Your task to perform on an android device: snooze an email in the gmail app Image 0: 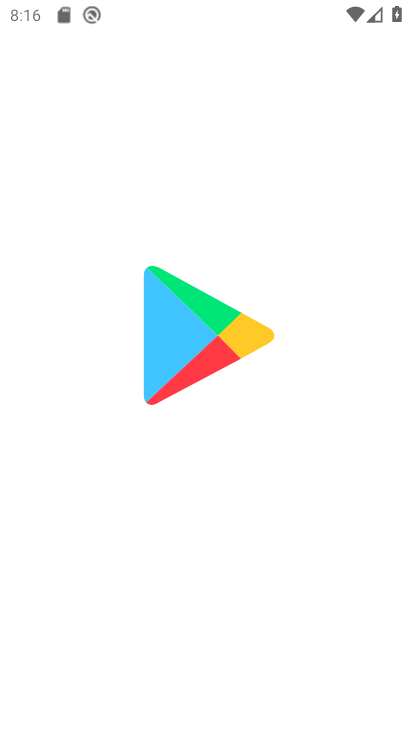
Step 0: press home button
Your task to perform on an android device: snooze an email in the gmail app Image 1: 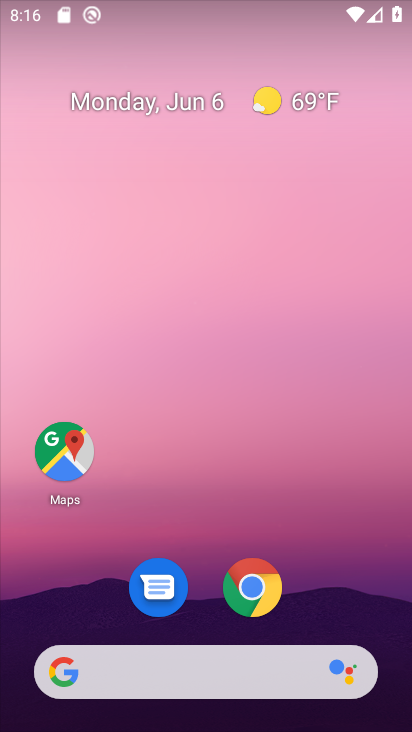
Step 1: drag from (353, 590) to (373, 147)
Your task to perform on an android device: snooze an email in the gmail app Image 2: 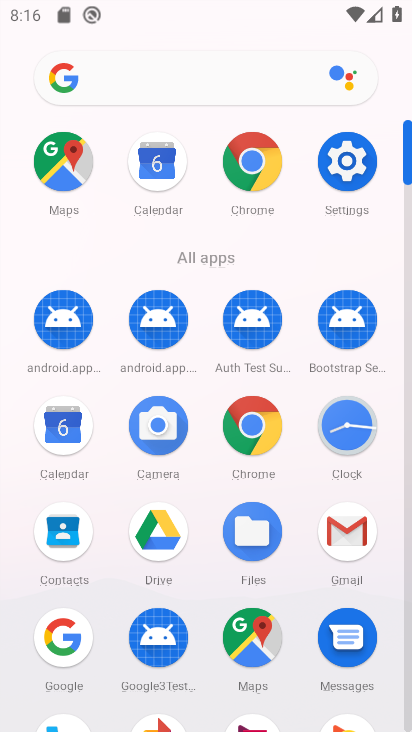
Step 2: click (344, 541)
Your task to perform on an android device: snooze an email in the gmail app Image 3: 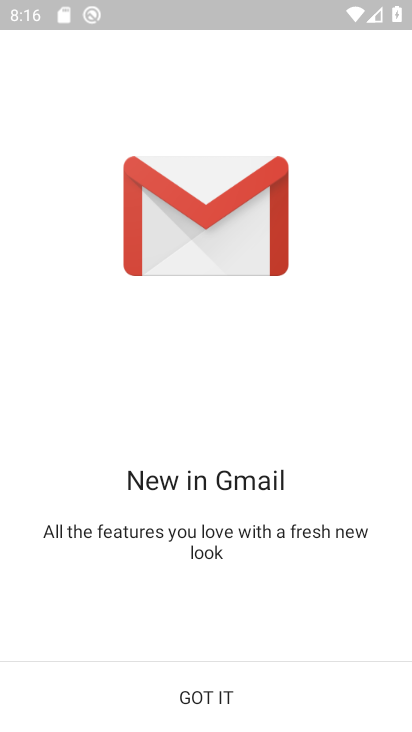
Step 3: click (221, 698)
Your task to perform on an android device: snooze an email in the gmail app Image 4: 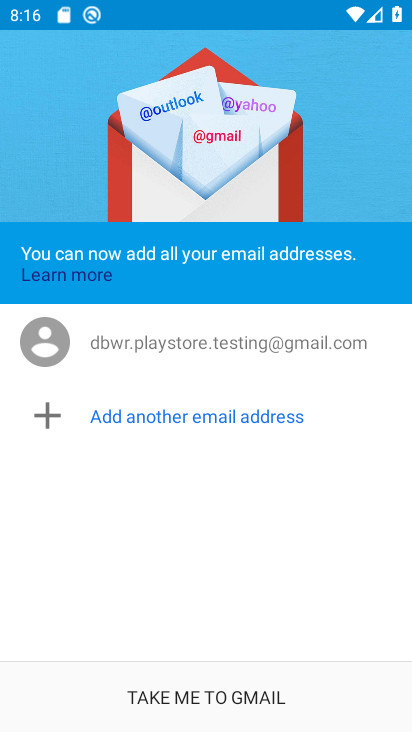
Step 4: click (220, 695)
Your task to perform on an android device: snooze an email in the gmail app Image 5: 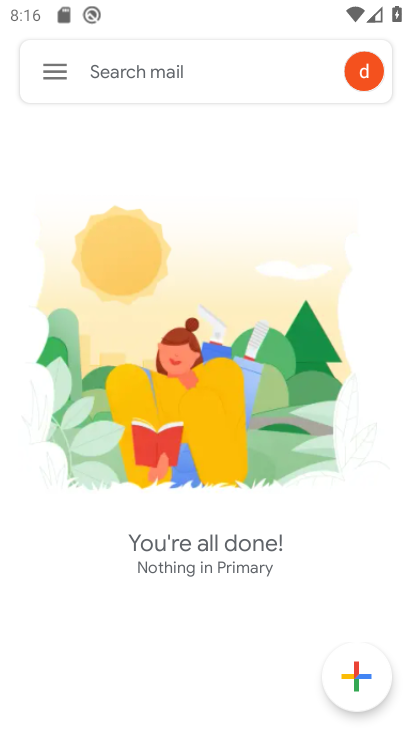
Step 5: click (52, 73)
Your task to perform on an android device: snooze an email in the gmail app Image 6: 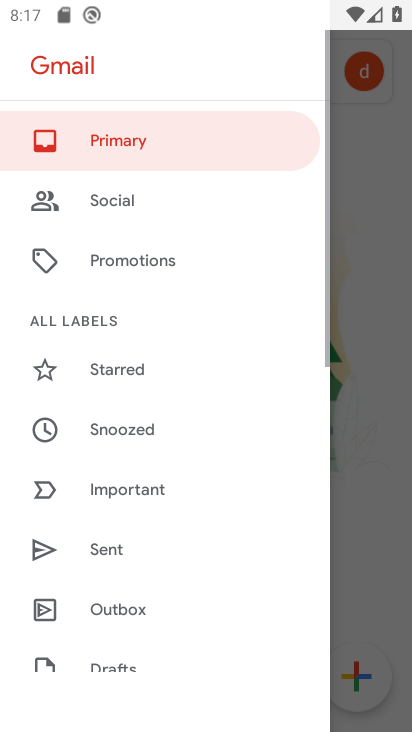
Step 6: click (124, 427)
Your task to perform on an android device: snooze an email in the gmail app Image 7: 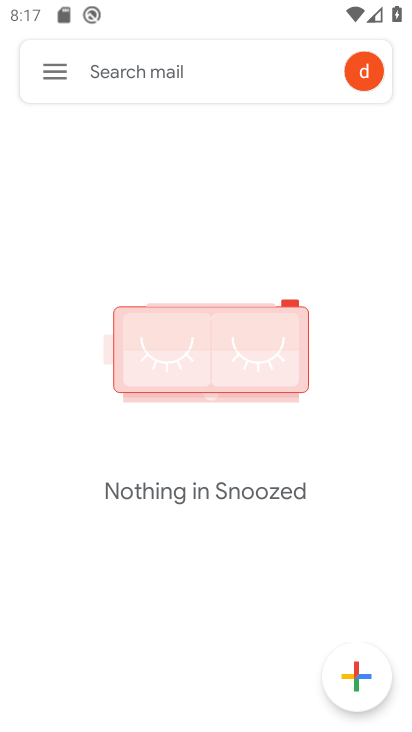
Step 7: task complete